Your task to perform on an android device: Open the calendar app, open the side menu, and click the "Day" option Image 0: 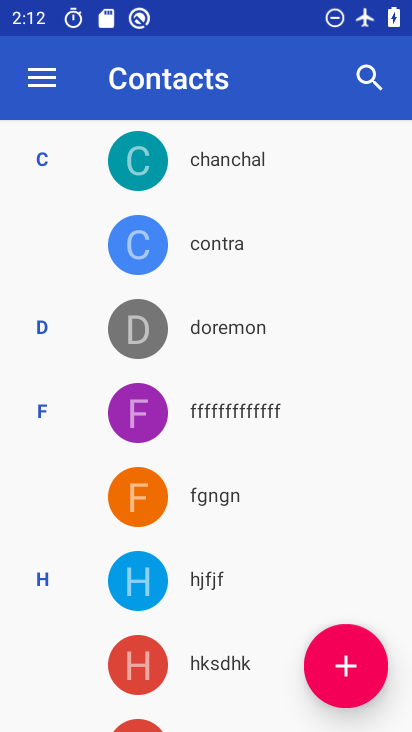
Step 0: press home button
Your task to perform on an android device: Open the calendar app, open the side menu, and click the "Day" option Image 1: 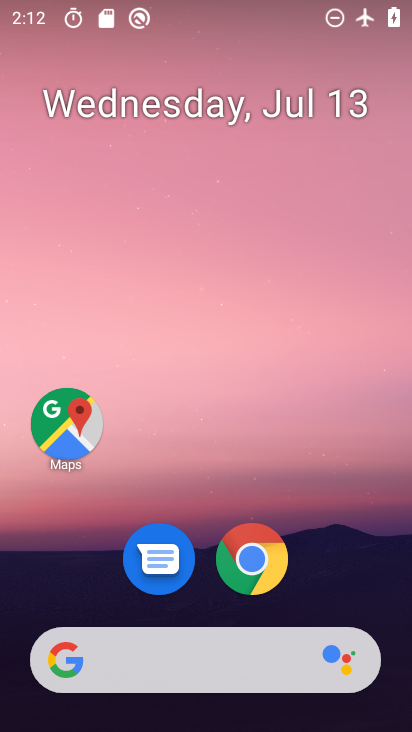
Step 1: drag from (239, 560) to (330, 197)
Your task to perform on an android device: Open the calendar app, open the side menu, and click the "Day" option Image 2: 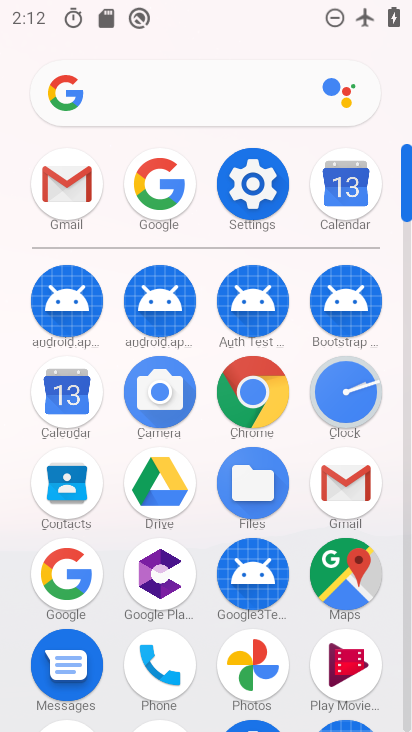
Step 2: click (76, 404)
Your task to perform on an android device: Open the calendar app, open the side menu, and click the "Day" option Image 3: 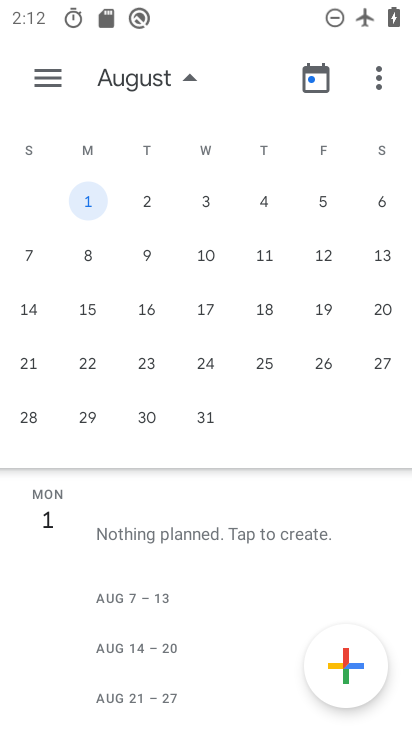
Step 3: click (52, 89)
Your task to perform on an android device: Open the calendar app, open the side menu, and click the "Day" option Image 4: 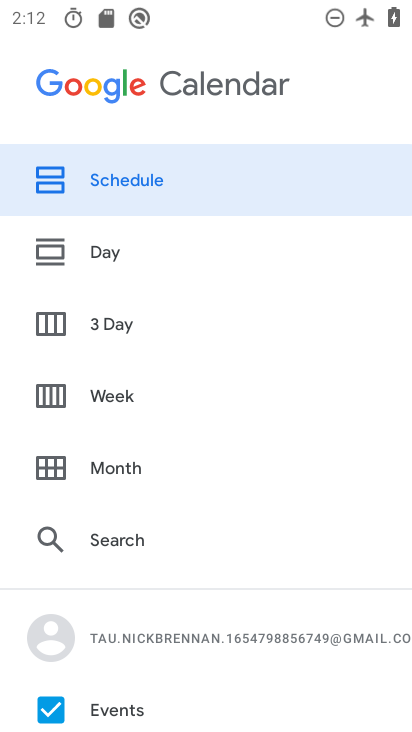
Step 4: click (124, 261)
Your task to perform on an android device: Open the calendar app, open the side menu, and click the "Day" option Image 5: 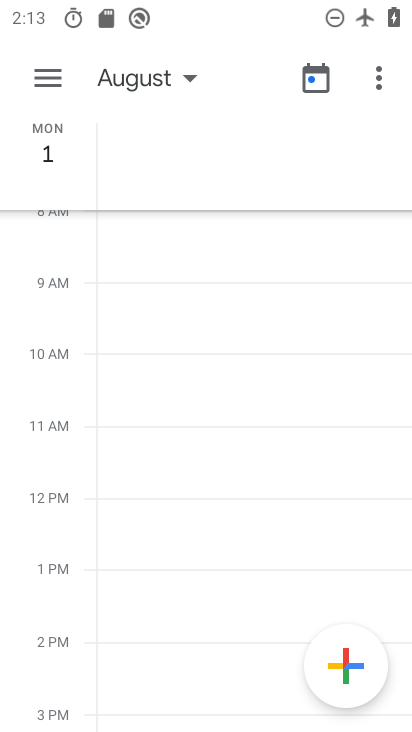
Step 5: task complete